Your task to perform on an android device: Open Google Maps Image 0: 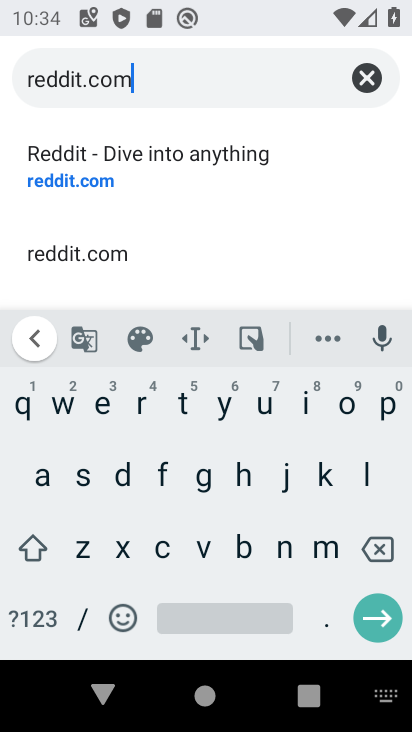
Step 0: press home button
Your task to perform on an android device: Open Google Maps Image 1: 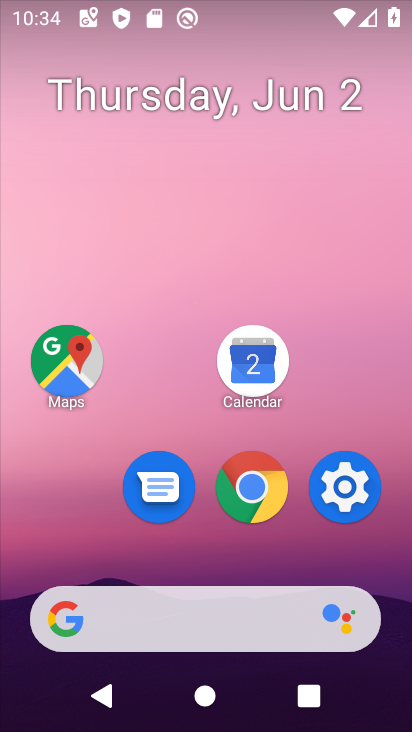
Step 1: drag from (208, 639) to (161, 186)
Your task to perform on an android device: Open Google Maps Image 2: 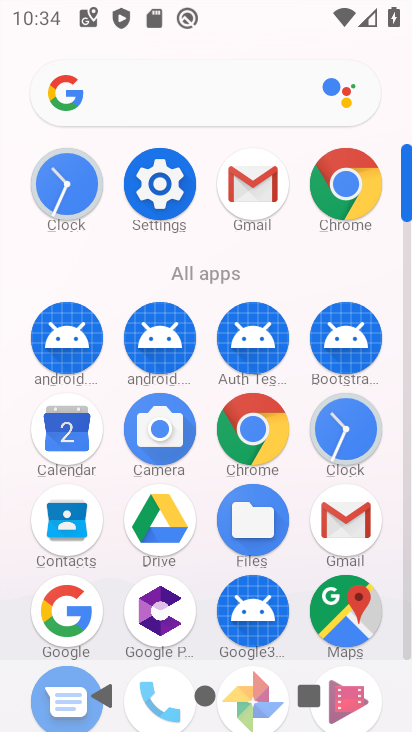
Step 2: click (354, 614)
Your task to perform on an android device: Open Google Maps Image 3: 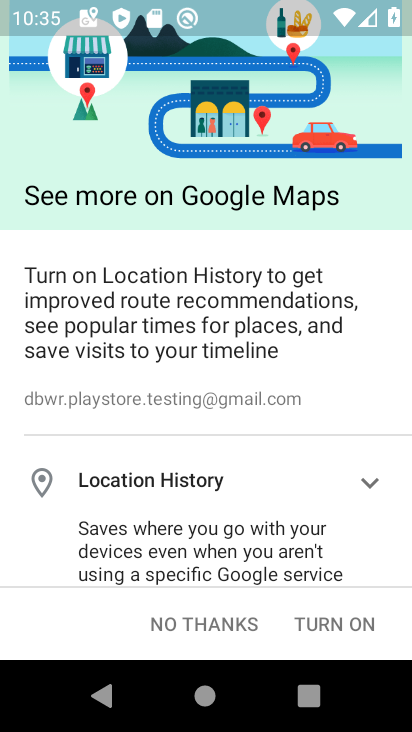
Step 3: click (227, 623)
Your task to perform on an android device: Open Google Maps Image 4: 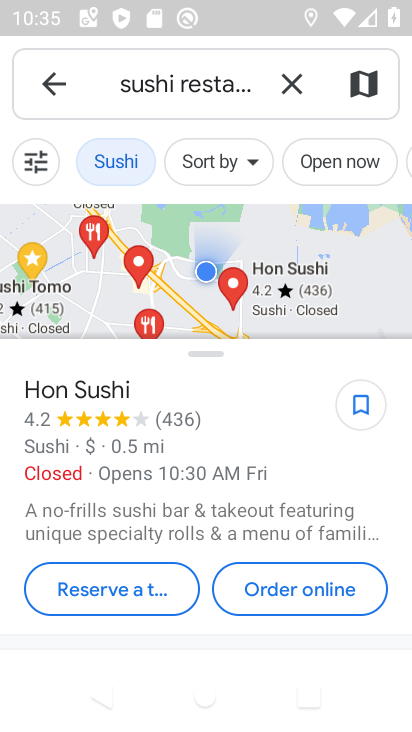
Step 4: task complete